Your task to perform on an android device: stop showing notifications on the lock screen Image 0: 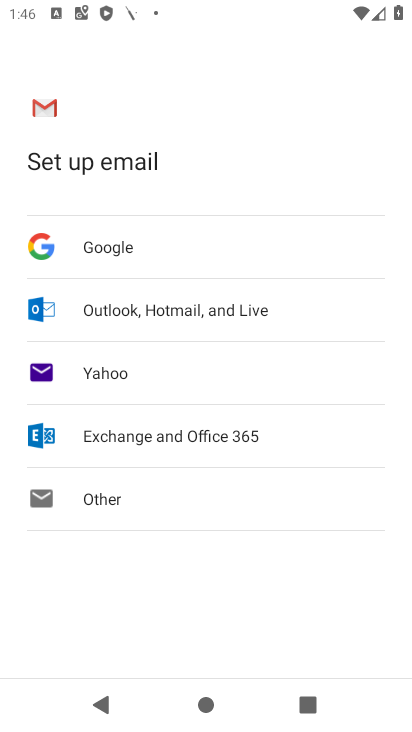
Step 0: press home button
Your task to perform on an android device: stop showing notifications on the lock screen Image 1: 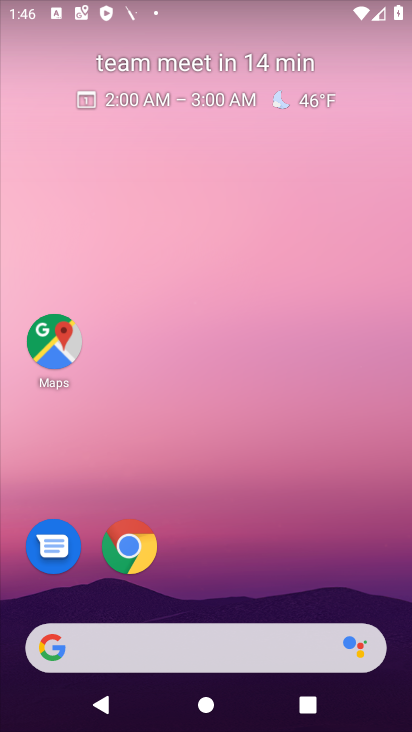
Step 1: drag from (392, 615) to (285, 94)
Your task to perform on an android device: stop showing notifications on the lock screen Image 2: 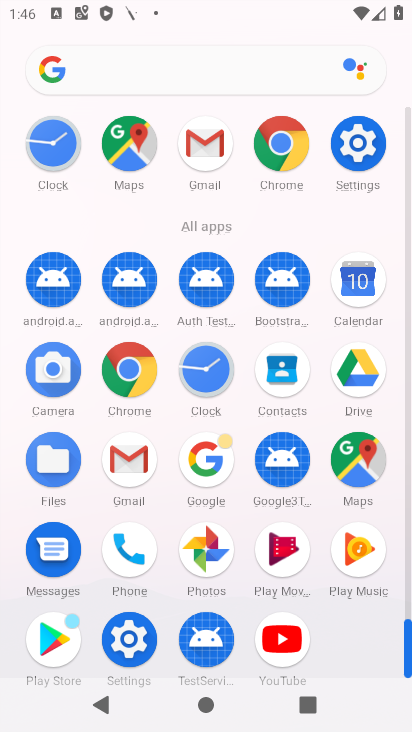
Step 2: click (129, 639)
Your task to perform on an android device: stop showing notifications on the lock screen Image 3: 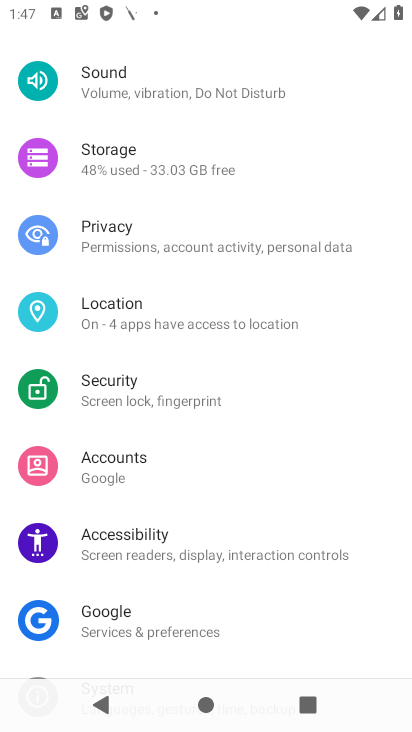
Step 3: drag from (355, 128) to (396, 485)
Your task to perform on an android device: stop showing notifications on the lock screen Image 4: 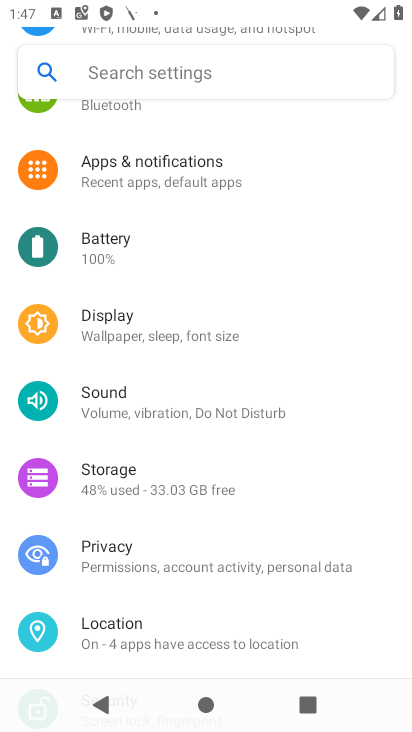
Step 4: click (125, 174)
Your task to perform on an android device: stop showing notifications on the lock screen Image 5: 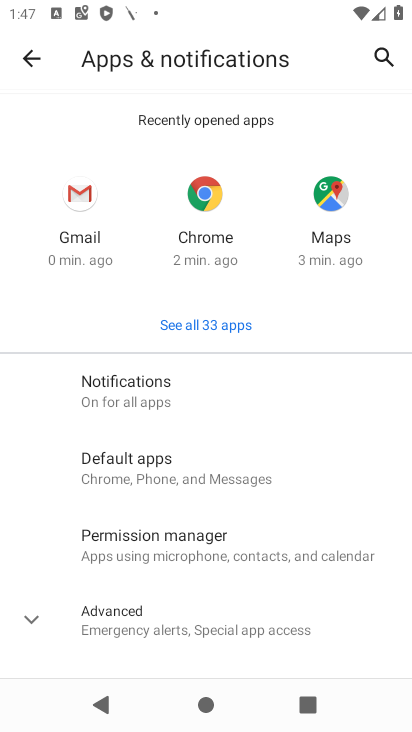
Step 5: click (129, 392)
Your task to perform on an android device: stop showing notifications on the lock screen Image 6: 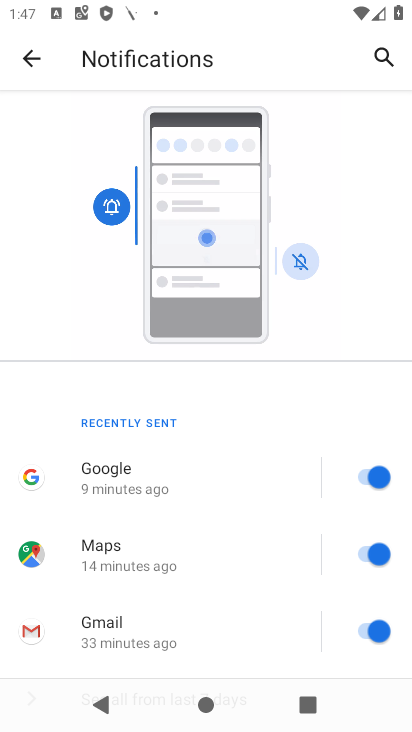
Step 6: drag from (324, 623) to (277, 216)
Your task to perform on an android device: stop showing notifications on the lock screen Image 7: 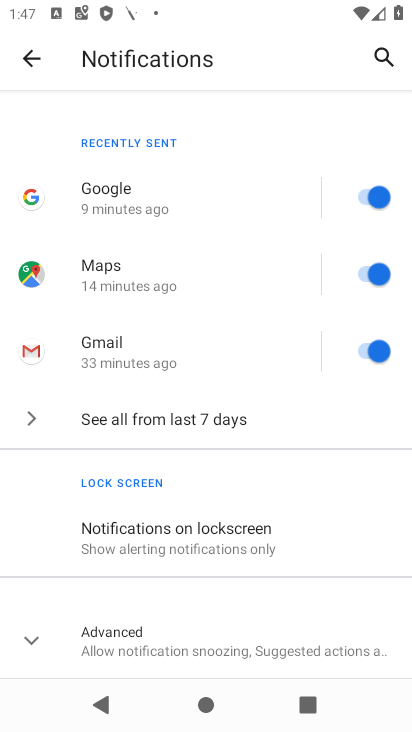
Step 7: click (167, 530)
Your task to perform on an android device: stop showing notifications on the lock screen Image 8: 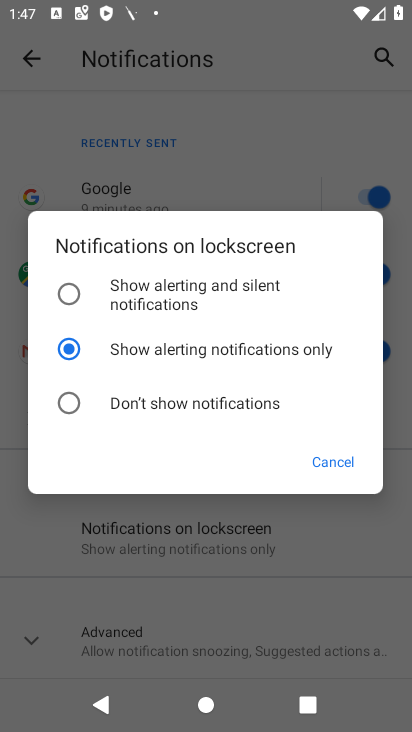
Step 8: click (78, 406)
Your task to perform on an android device: stop showing notifications on the lock screen Image 9: 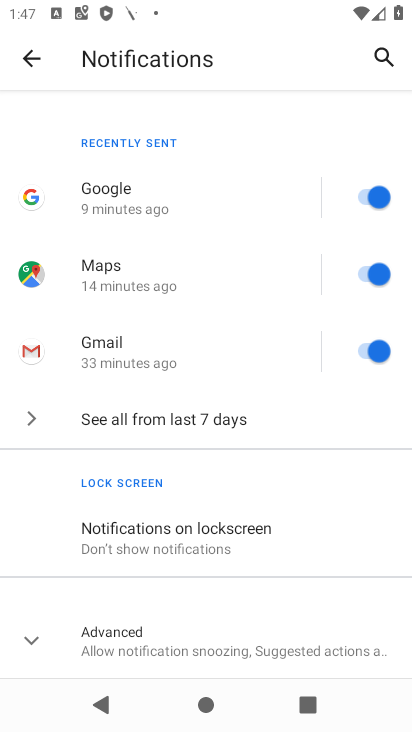
Step 9: task complete